Your task to perform on an android device: Open Google Chrome Image 0: 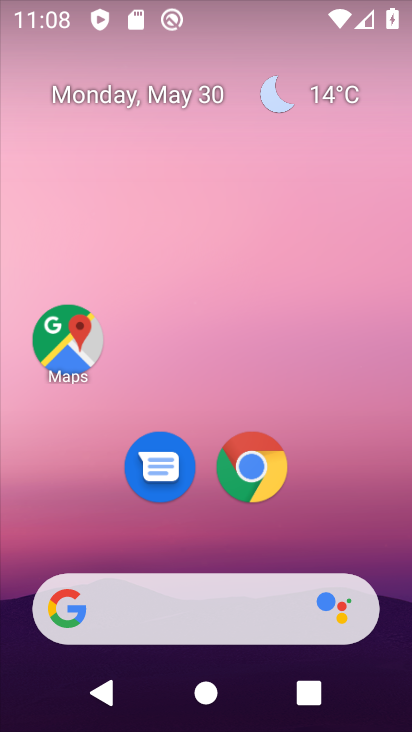
Step 0: click (236, 471)
Your task to perform on an android device: Open Google Chrome Image 1: 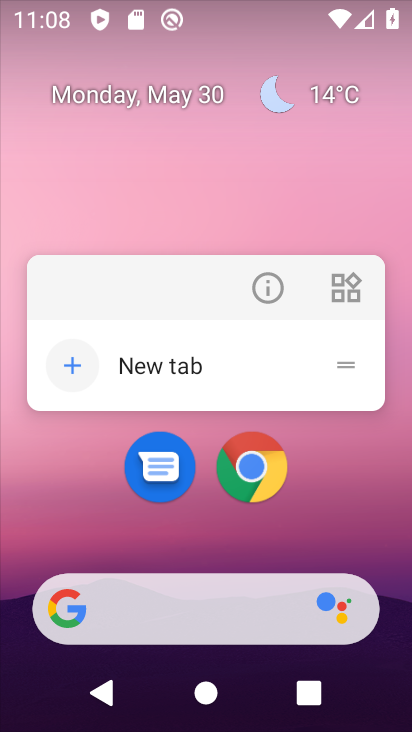
Step 1: click (253, 472)
Your task to perform on an android device: Open Google Chrome Image 2: 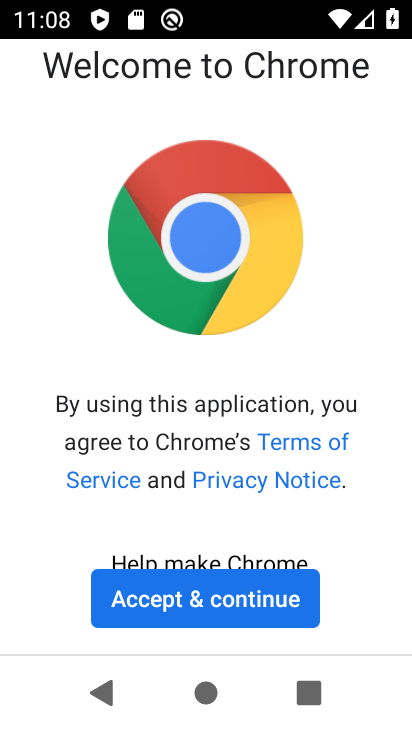
Step 2: click (262, 606)
Your task to perform on an android device: Open Google Chrome Image 3: 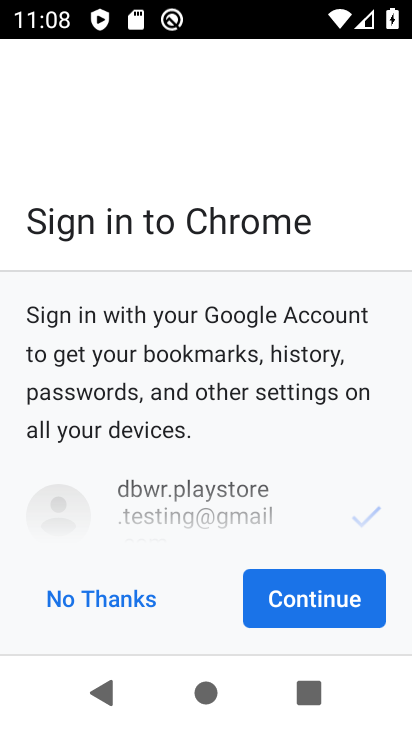
Step 3: click (262, 606)
Your task to perform on an android device: Open Google Chrome Image 4: 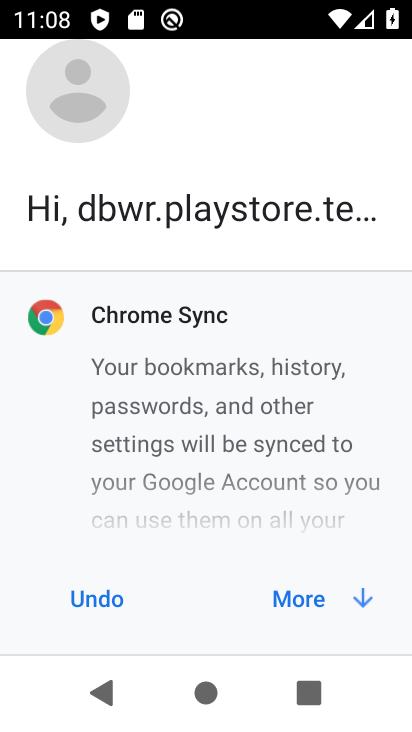
Step 4: click (288, 598)
Your task to perform on an android device: Open Google Chrome Image 5: 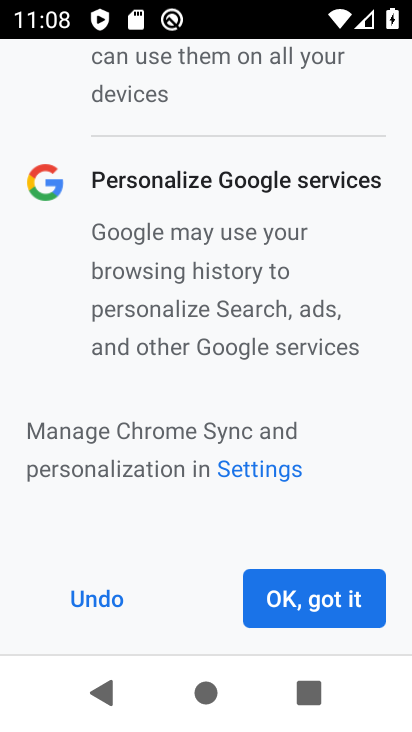
Step 5: click (288, 598)
Your task to perform on an android device: Open Google Chrome Image 6: 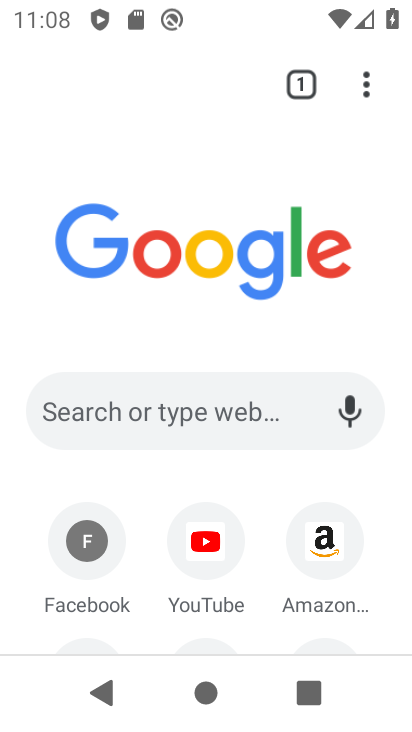
Step 6: task complete